Your task to perform on an android device: Open Chrome and go to the settings page Image 0: 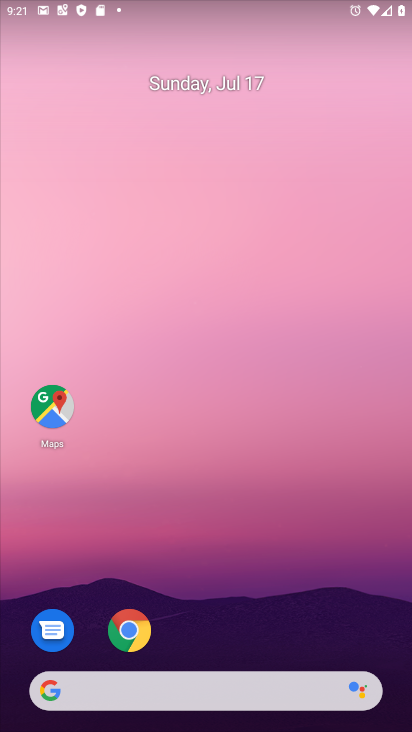
Step 0: drag from (311, 617) to (324, 101)
Your task to perform on an android device: Open Chrome and go to the settings page Image 1: 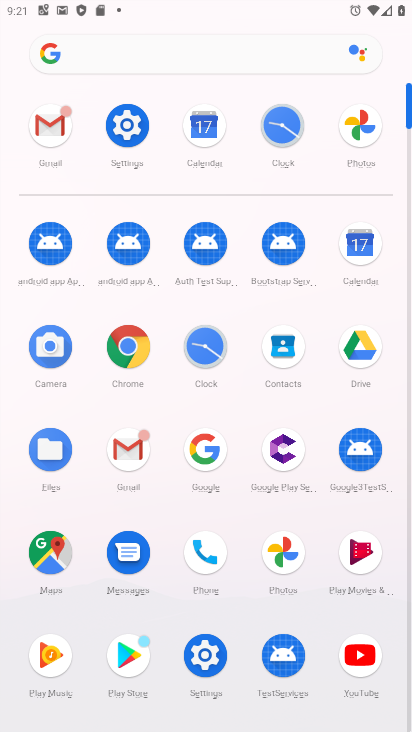
Step 1: click (131, 350)
Your task to perform on an android device: Open Chrome and go to the settings page Image 2: 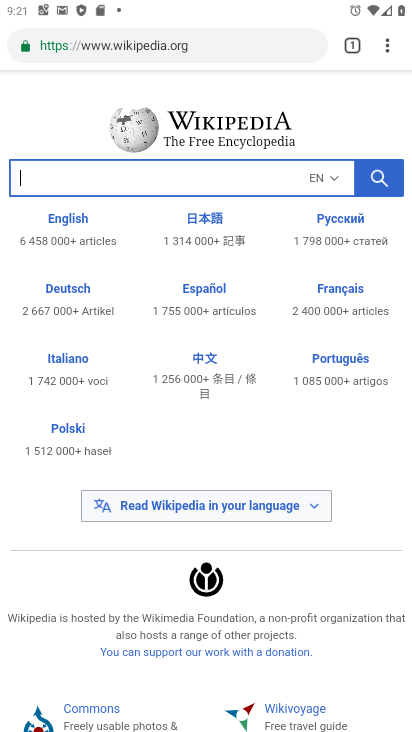
Step 2: click (385, 46)
Your task to perform on an android device: Open Chrome and go to the settings page Image 3: 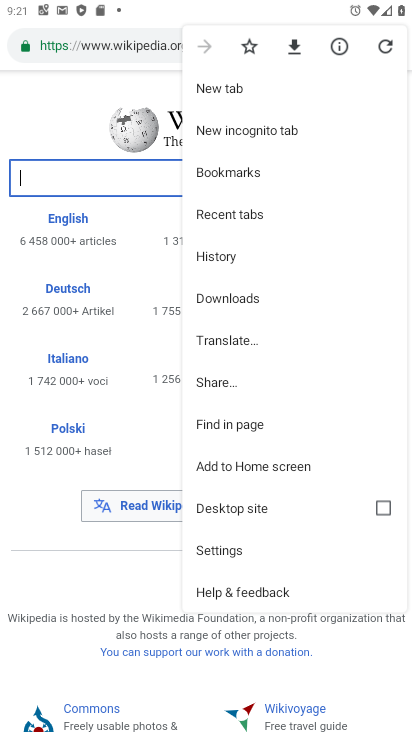
Step 3: click (251, 548)
Your task to perform on an android device: Open Chrome and go to the settings page Image 4: 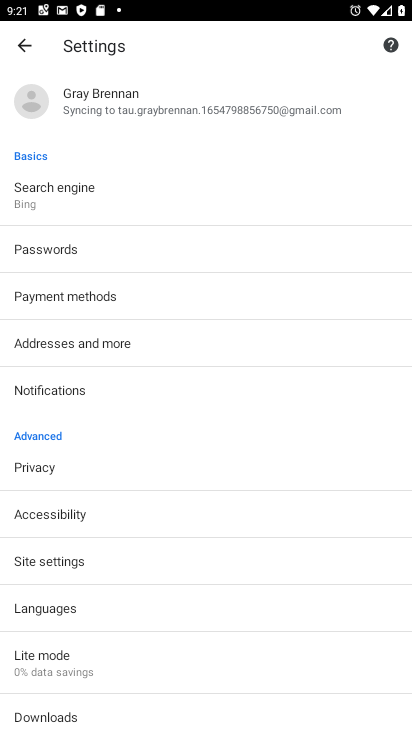
Step 4: task complete